Your task to perform on an android device: toggle priority inbox in the gmail app Image 0: 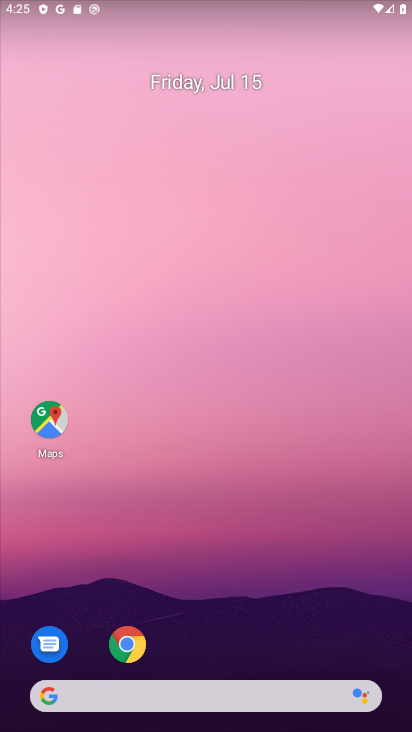
Step 0: drag from (208, 679) to (174, 322)
Your task to perform on an android device: toggle priority inbox in the gmail app Image 1: 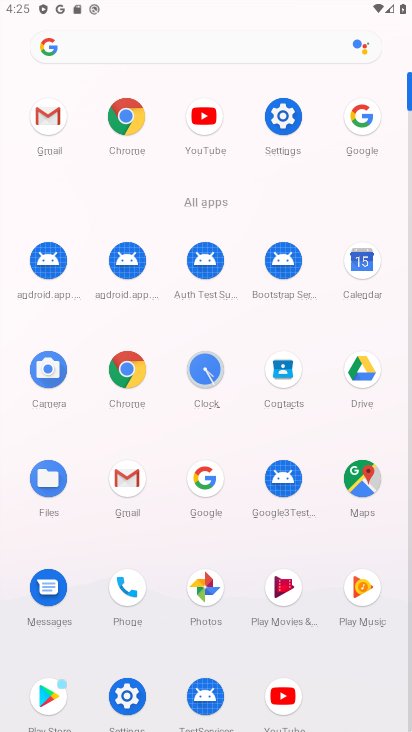
Step 1: click (129, 498)
Your task to perform on an android device: toggle priority inbox in the gmail app Image 2: 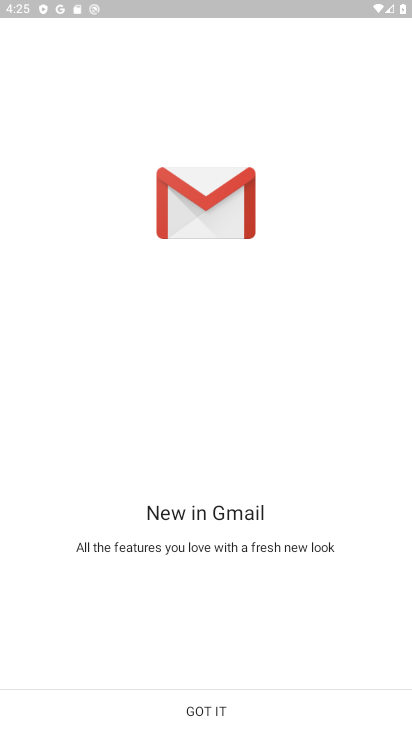
Step 2: click (218, 717)
Your task to perform on an android device: toggle priority inbox in the gmail app Image 3: 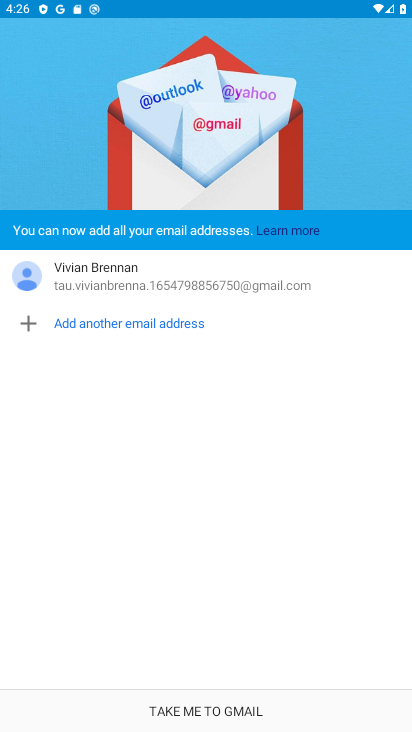
Step 3: click (237, 711)
Your task to perform on an android device: toggle priority inbox in the gmail app Image 4: 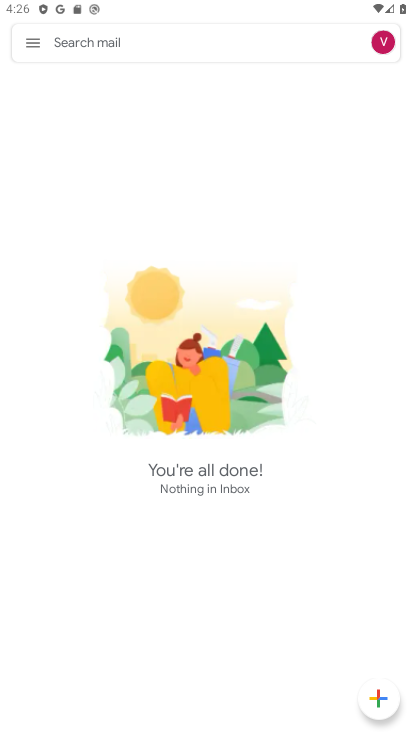
Step 4: click (36, 47)
Your task to perform on an android device: toggle priority inbox in the gmail app Image 5: 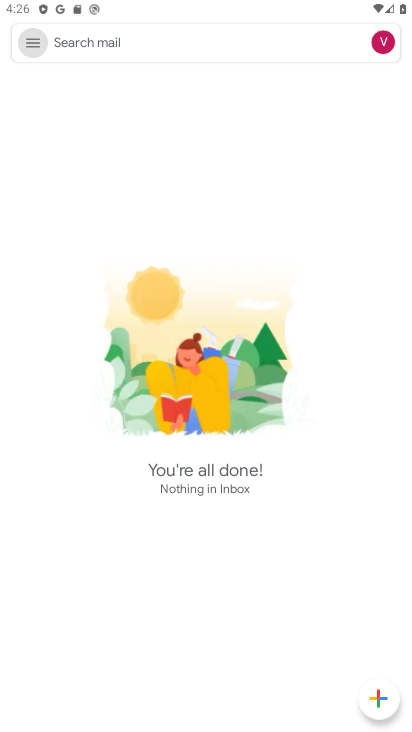
Step 5: click (36, 47)
Your task to perform on an android device: toggle priority inbox in the gmail app Image 6: 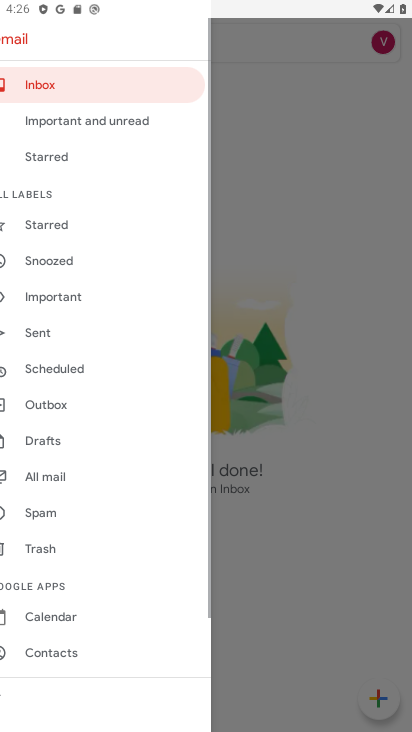
Step 6: click (36, 47)
Your task to perform on an android device: toggle priority inbox in the gmail app Image 7: 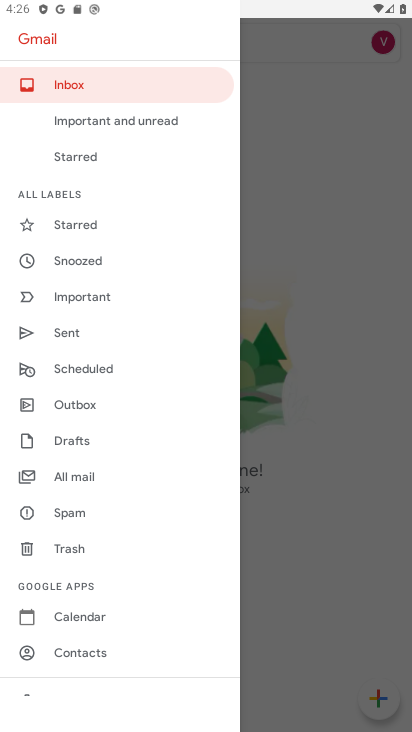
Step 7: drag from (180, 633) to (142, 449)
Your task to perform on an android device: toggle priority inbox in the gmail app Image 8: 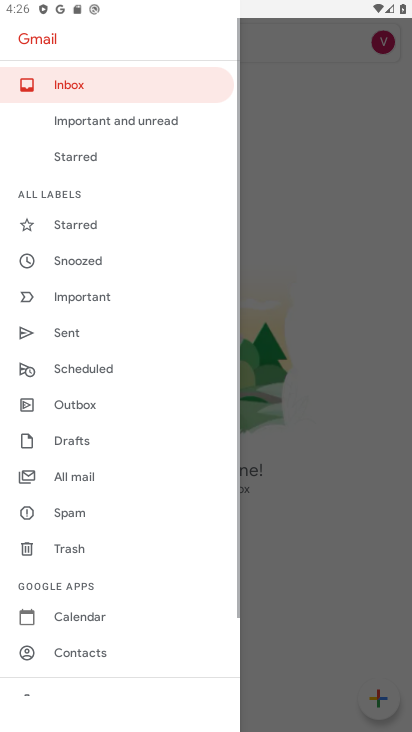
Step 8: drag from (128, 679) to (143, 421)
Your task to perform on an android device: toggle priority inbox in the gmail app Image 9: 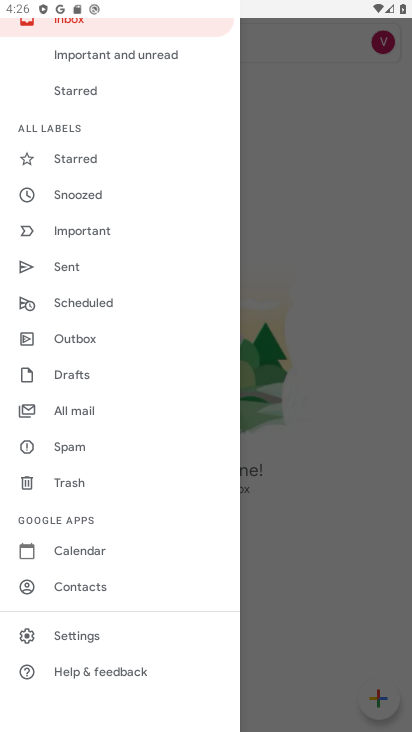
Step 9: click (89, 635)
Your task to perform on an android device: toggle priority inbox in the gmail app Image 10: 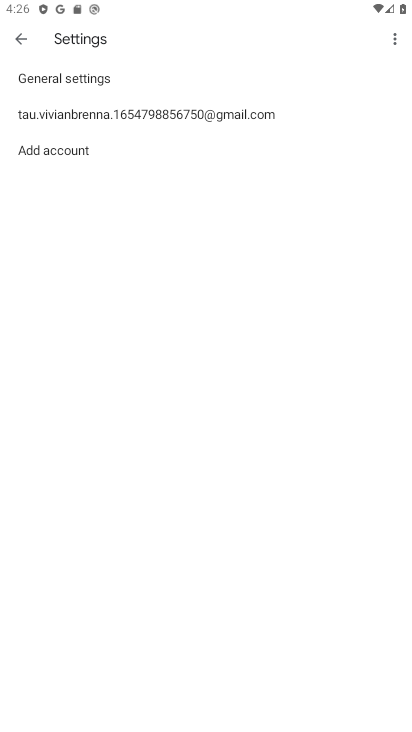
Step 10: click (92, 117)
Your task to perform on an android device: toggle priority inbox in the gmail app Image 11: 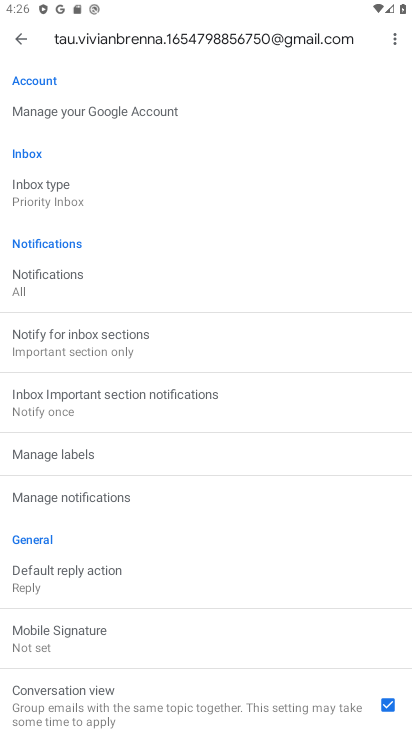
Step 11: click (43, 202)
Your task to perform on an android device: toggle priority inbox in the gmail app Image 12: 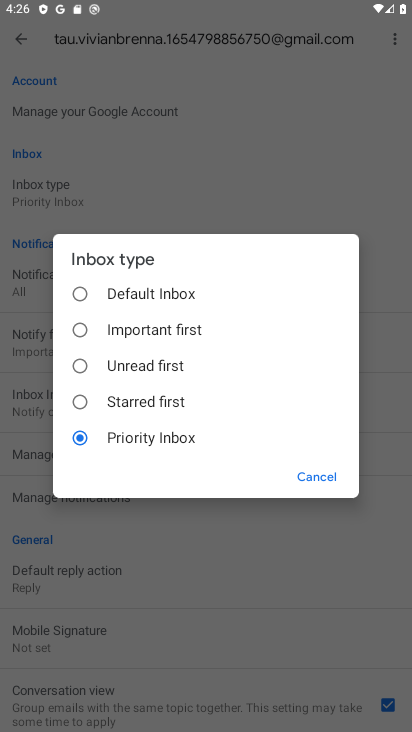
Step 12: click (73, 295)
Your task to perform on an android device: toggle priority inbox in the gmail app Image 13: 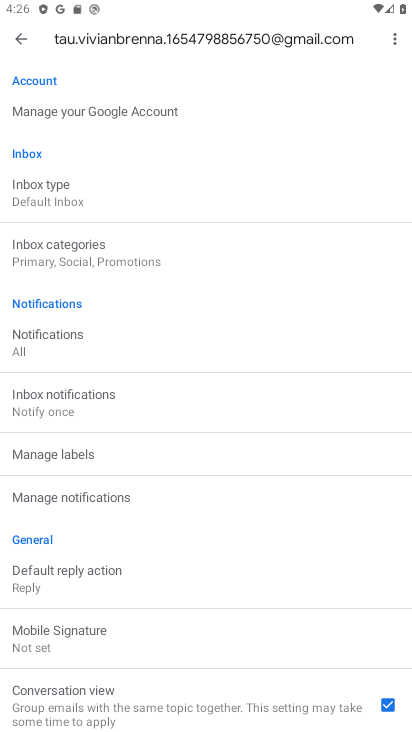
Step 13: task complete